Your task to perform on an android device: Open location settings Image 0: 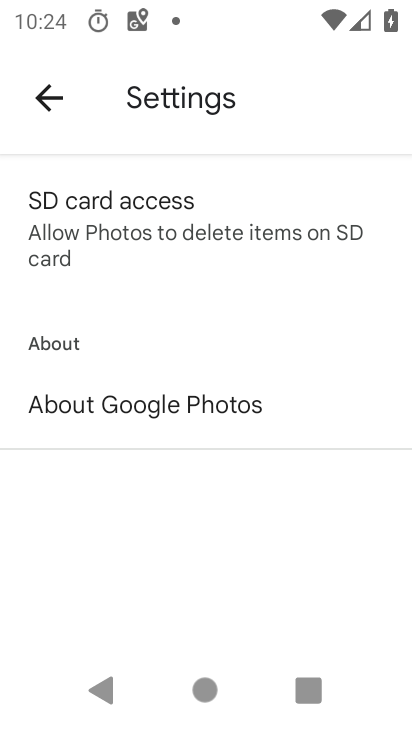
Step 0: click (44, 102)
Your task to perform on an android device: Open location settings Image 1: 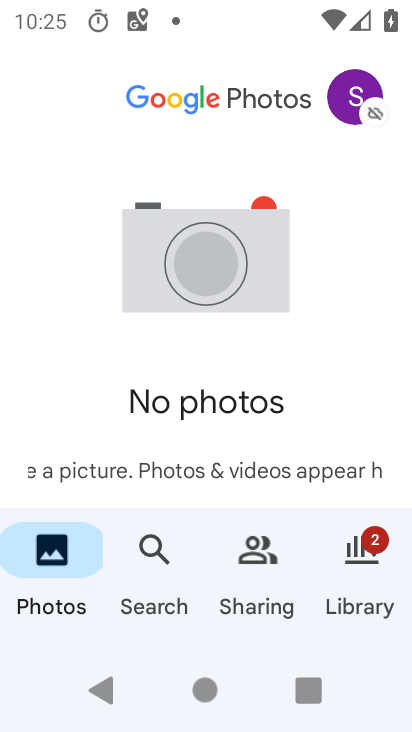
Step 1: drag from (284, 521) to (284, 379)
Your task to perform on an android device: Open location settings Image 2: 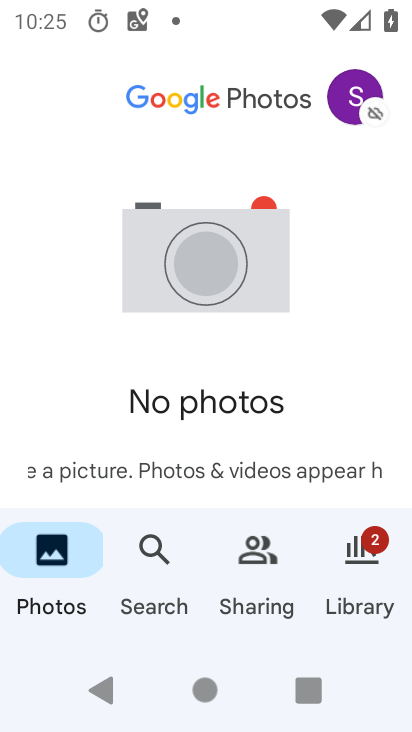
Step 2: press back button
Your task to perform on an android device: Open location settings Image 3: 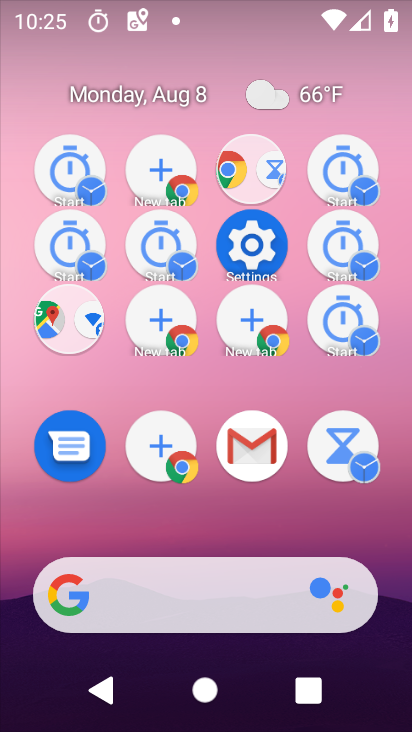
Step 3: click (128, 374)
Your task to perform on an android device: Open location settings Image 4: 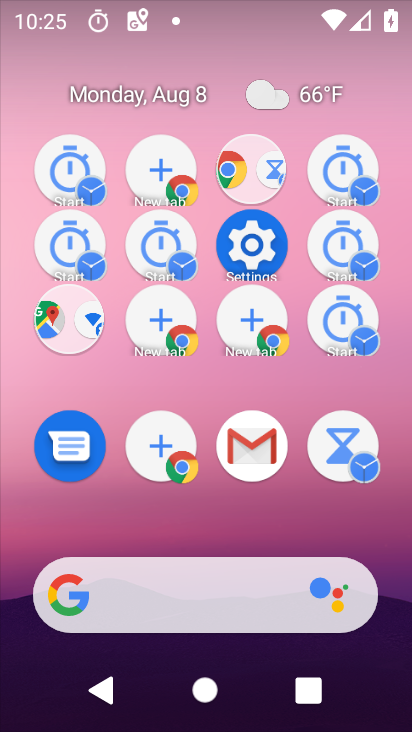
Step 4: click (203, 291)
Your task to perform on an android device: Open location settings Image 5: 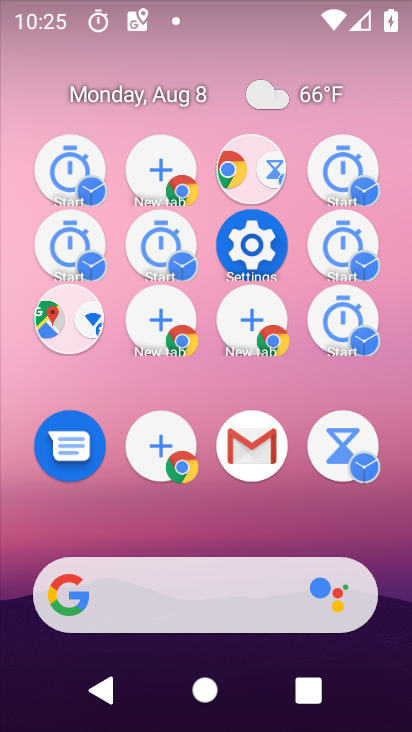
Step 5: drag from (252, 597) to (245, 136)
Your task to perform on an android device: Open location settings Image 6: 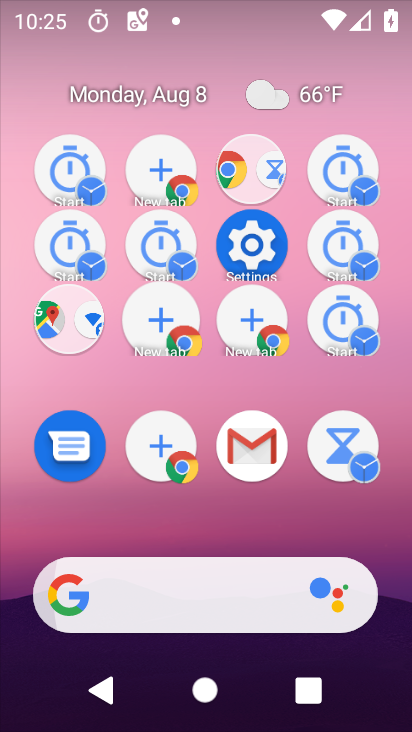
Step 6: drag from (233, 112) to (238, 47)
Your task to perform on an android device: Open location settings Image 7: 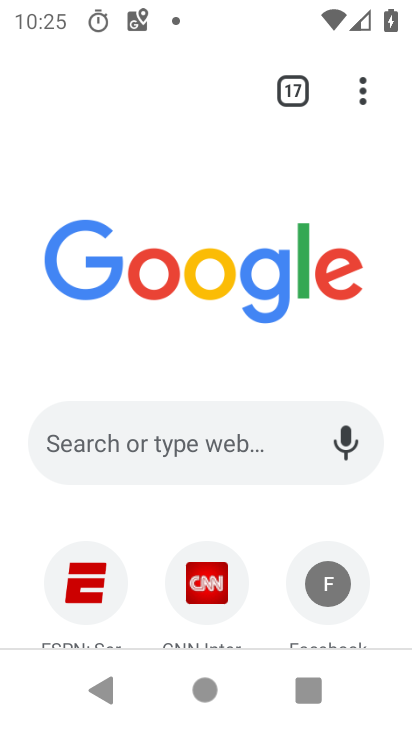
Step 7: press back button
Your task to perform on an android device: Open location settings Image 8: 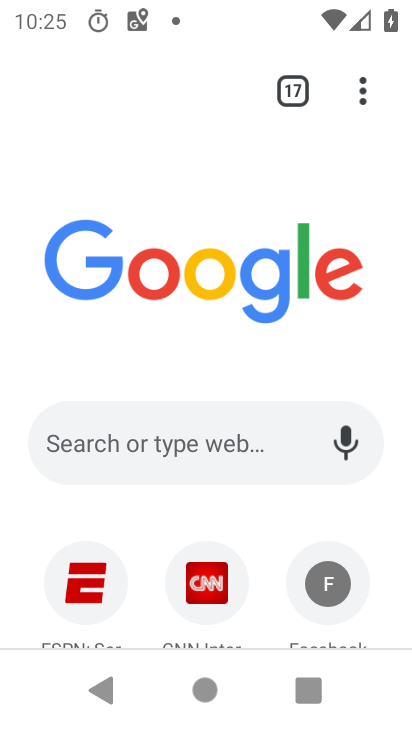
Step 8: press back button
Your task to perform on an android device: Open location settings Image 9: 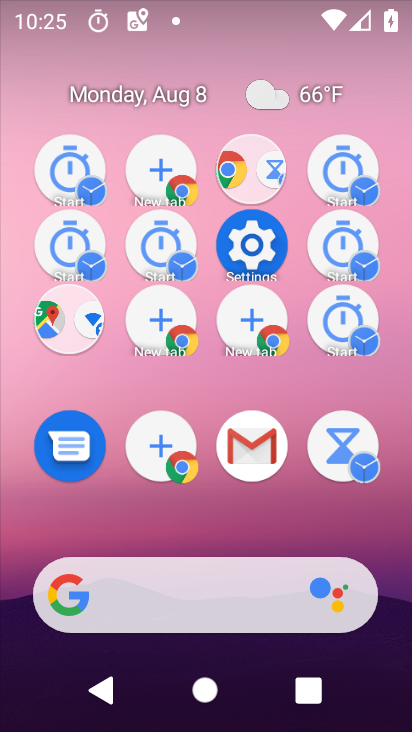
Step 9: click (238, 256)
Your task to perform on an android device: Open location settings Image 10: 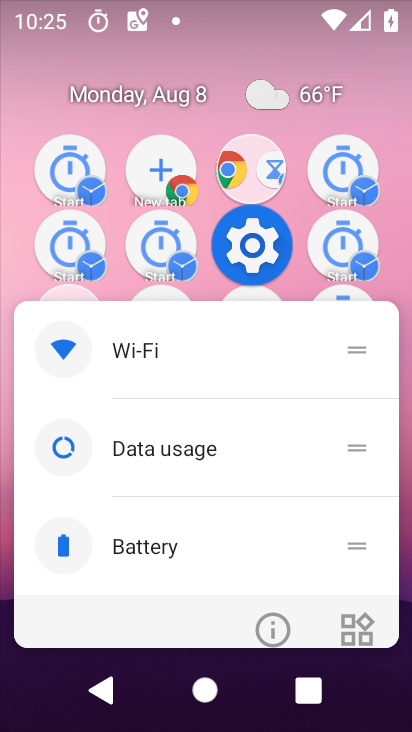
Step 10: click (242, 256)
Your task to perform on an android device: Open location settings Image 11: 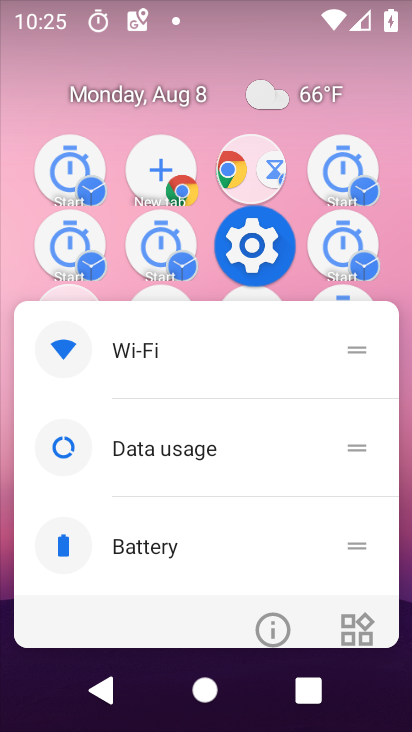
Step 11: click (250, 269)
Your task to perform on an android device: Open location settings Image 12: 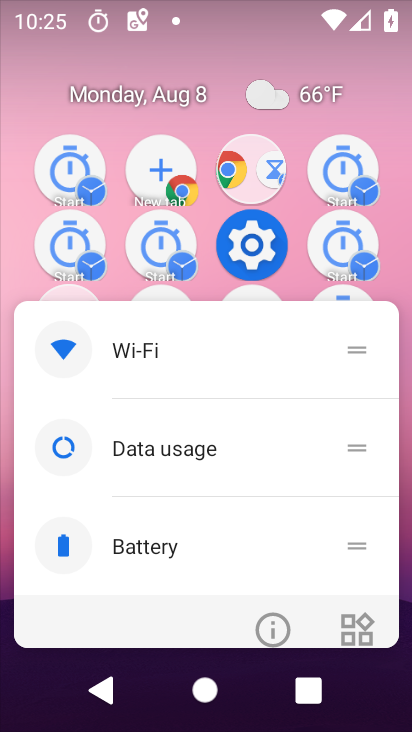
Step 12: click (250, 243)
Your task to perform on an android device: Open location settings Image 13: 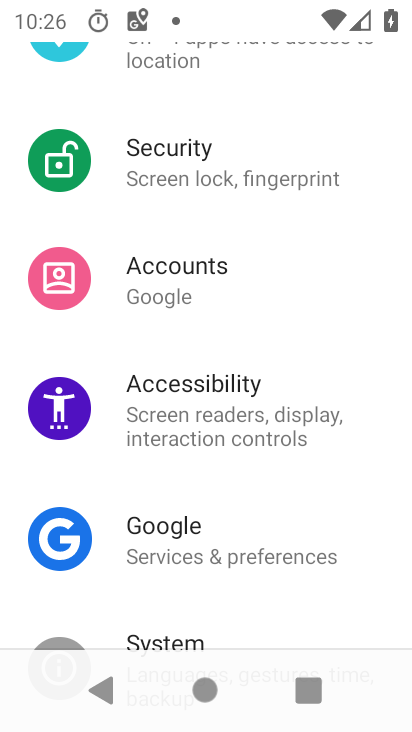
Step 13: drag from (175, 469) to (218, 220)
Your task to perform on an android device: Open location settings Image 14: 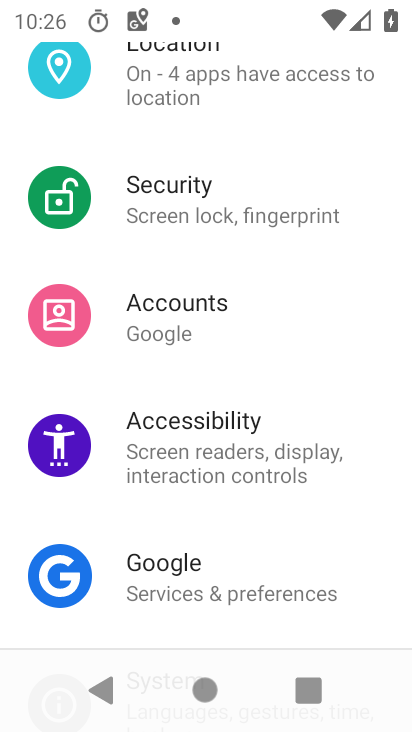
Step 14: click (174, 72)
Your task to perform on an android device: Open location settings Image 15: 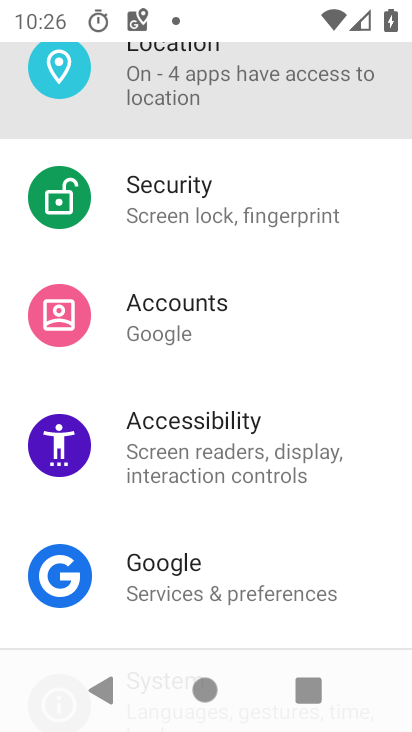
Step 15: click (176, 69)
Your task to perform on an android device: Open location settings Image 16: 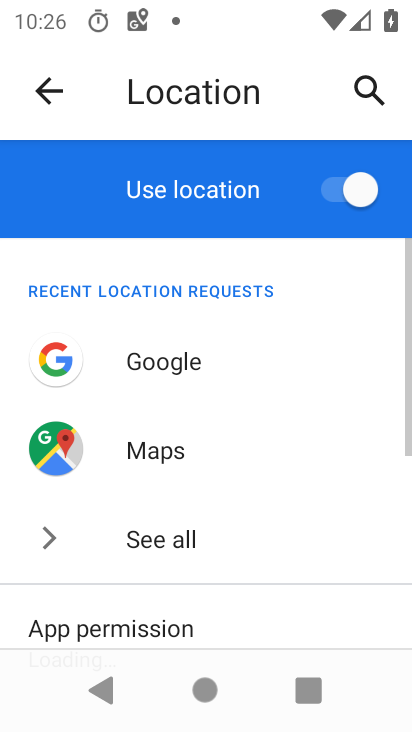
Step 16: task complete